Your task to perform on an android device: find photos in the google photos app Image 0: 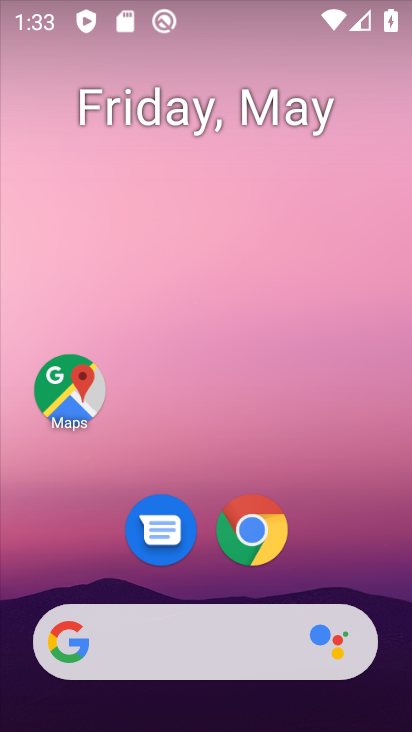
Step 0: drag from (325, 533) to (217, 117)
Your task to perform on an android device: find photos in the google photos app Image 1: 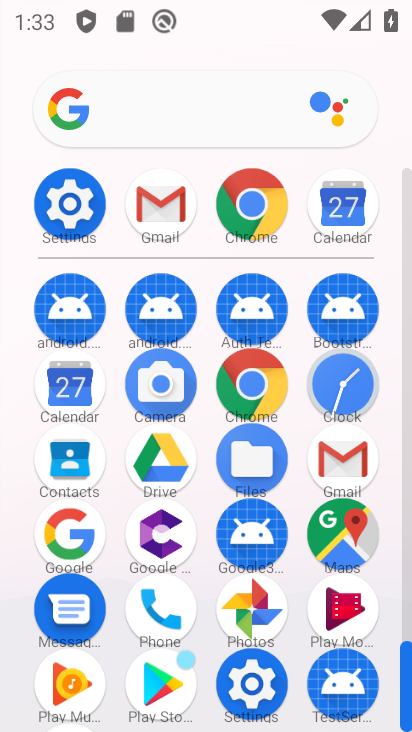
Step 1: click (261, 613)
Your task to perform on an android device: find photos in the google photos app Image 2: 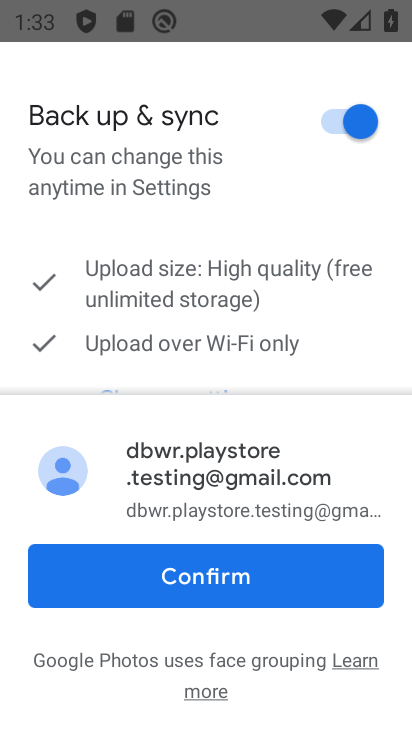
Step 2: click (206, 583)
Your task to perform on an android device: find photos in the google photos app Image 3: 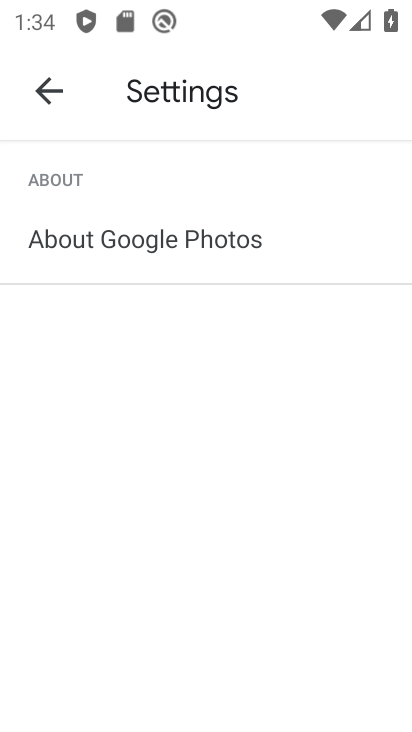
Step 3: click (34, 91)
Your task to perform on an android device: find photos in the google photos app Image 4: 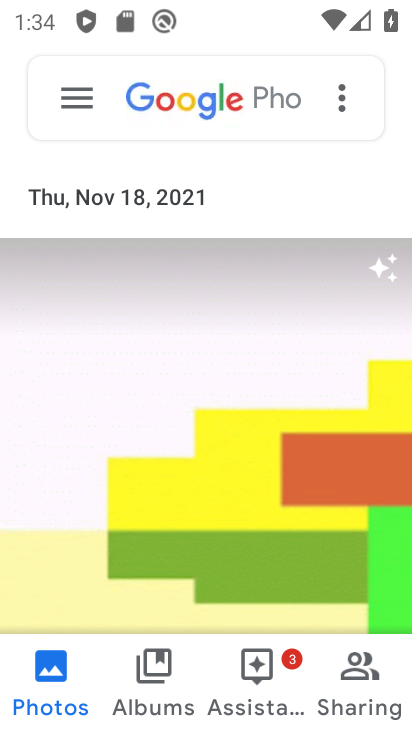
Step 4: task complete